Your task to perform on an android device: Search for the best selling TV on Best Buy. Image 0: 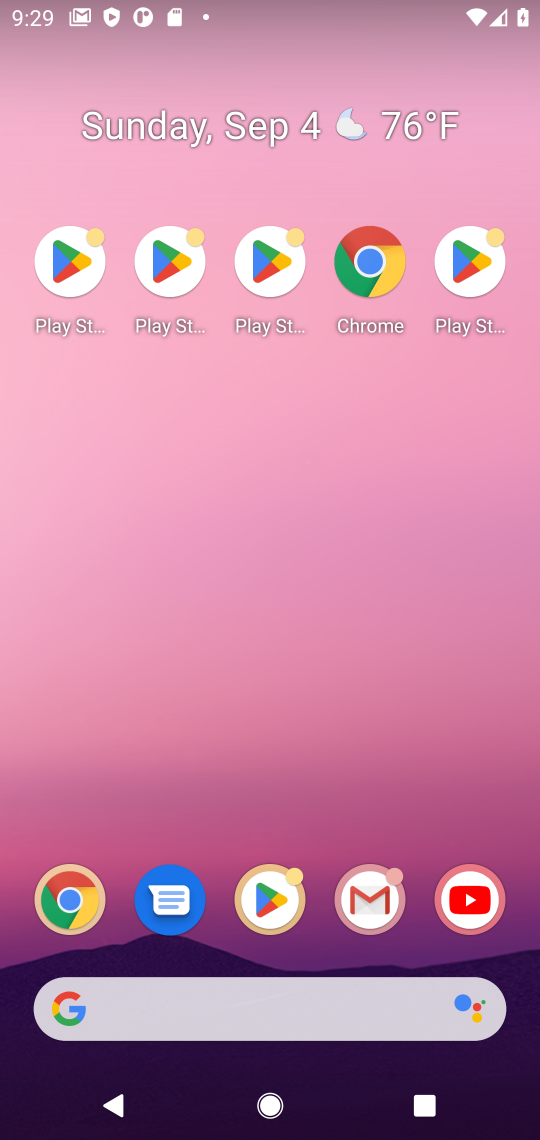
Step 0: drag from (360, 942) to (377, 40)
Your task to perform on an android device: Search for the best selling TV on Best Buy. Image 1: 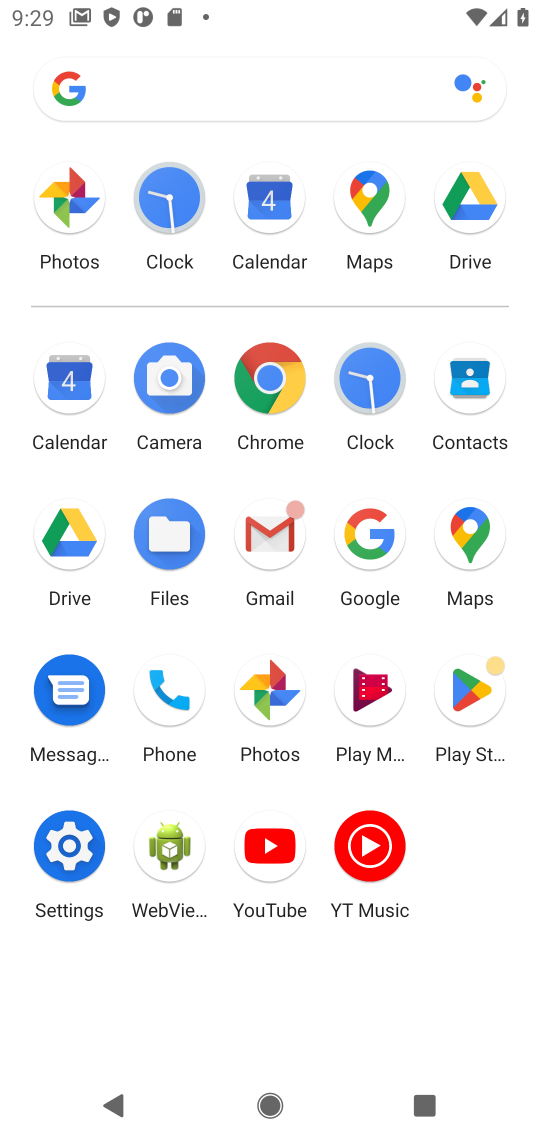
Step 1: click (372, 547)
Your task to perform on an android device: Search for the best selling TV on Best Buy. Image 2: 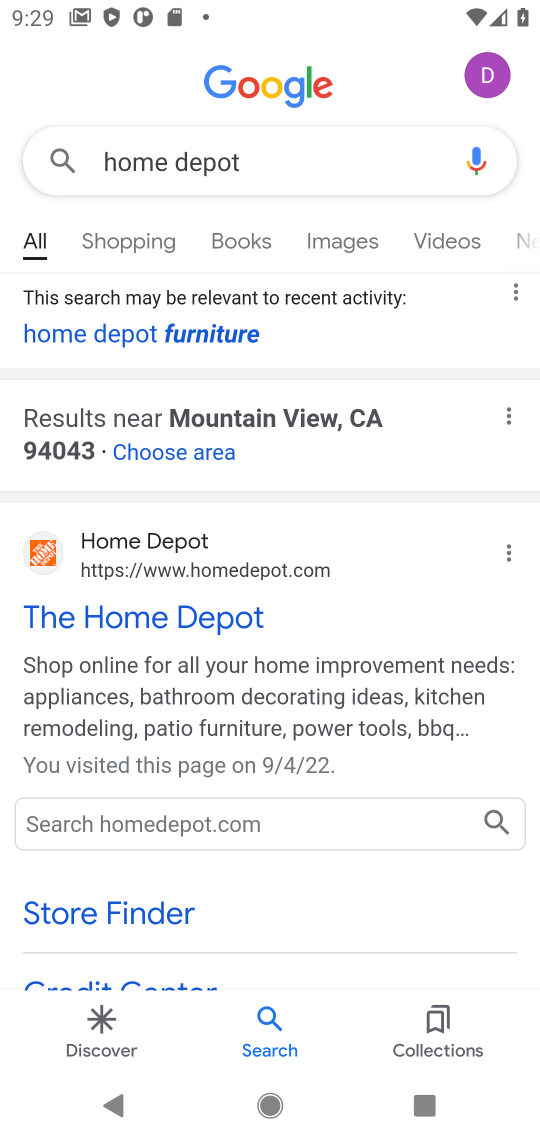
Step 2: click (299, 166)
Your task to perform on an android device: Search for the best selling TV on Best Buy. Image 3: 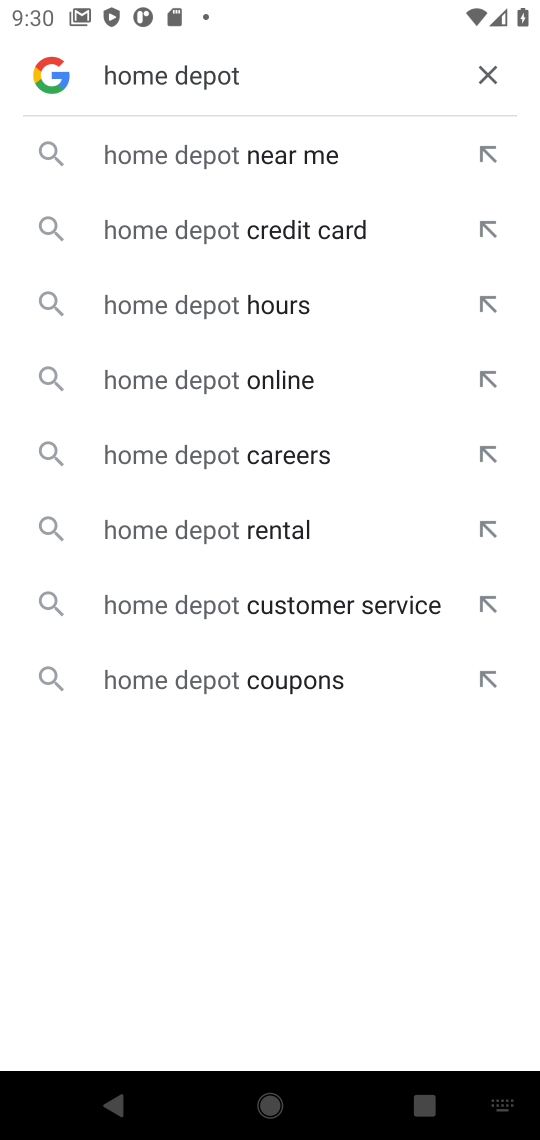
Step 3: click (493, 71)
Your task to perform on an android device: Search for the best selling TV on Best Buy. Image 4: 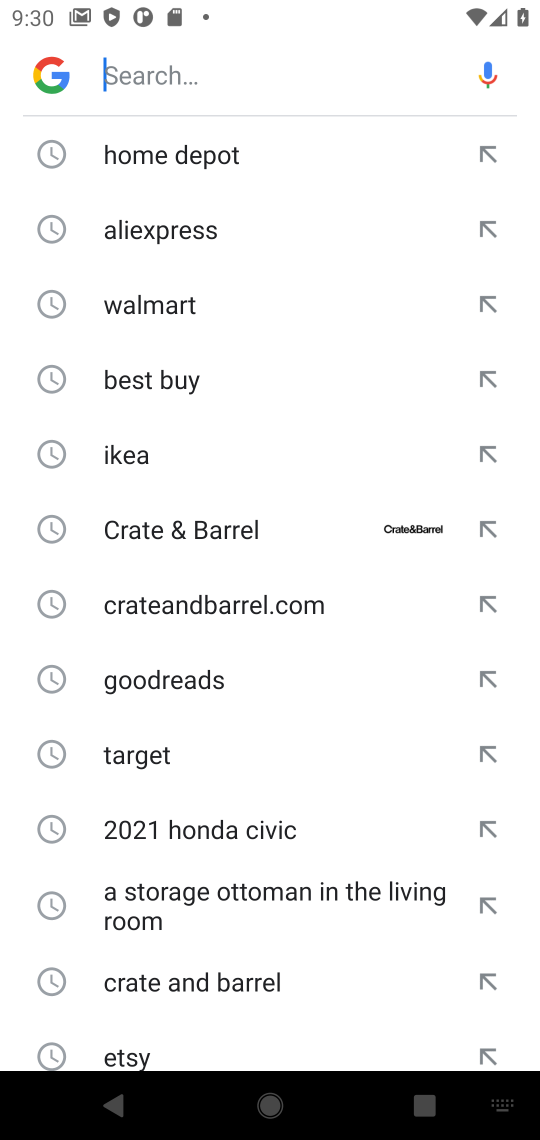
Step 4: type "Best Buy"
Your task to perform on an android device: Search for the best selling TV on Best Buy. Image 5: 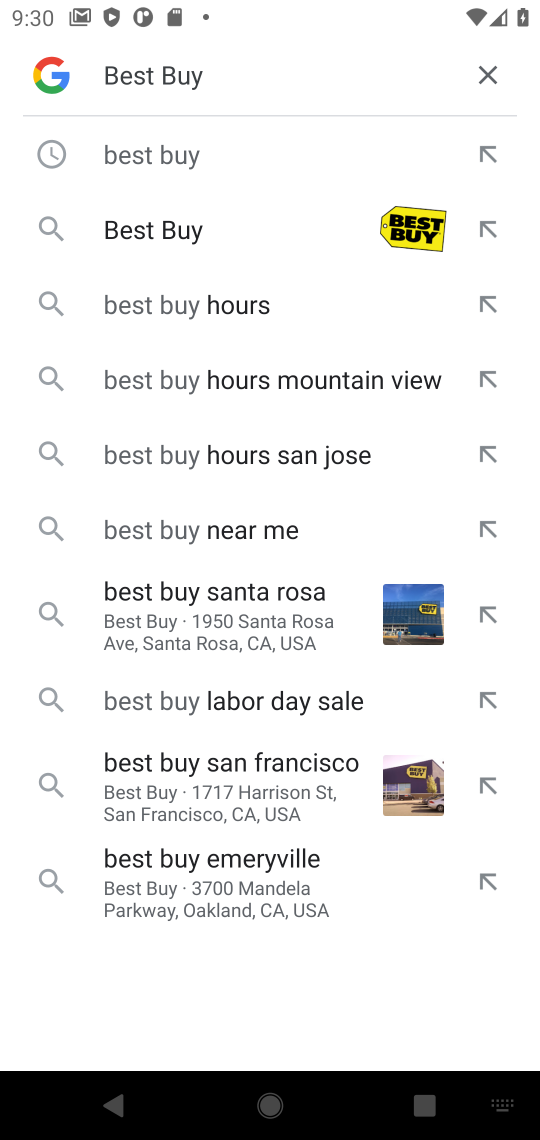
Step 5: type ""
Your task to perform on an android device: Search for the best selling TV on Best Buy. Image 6: 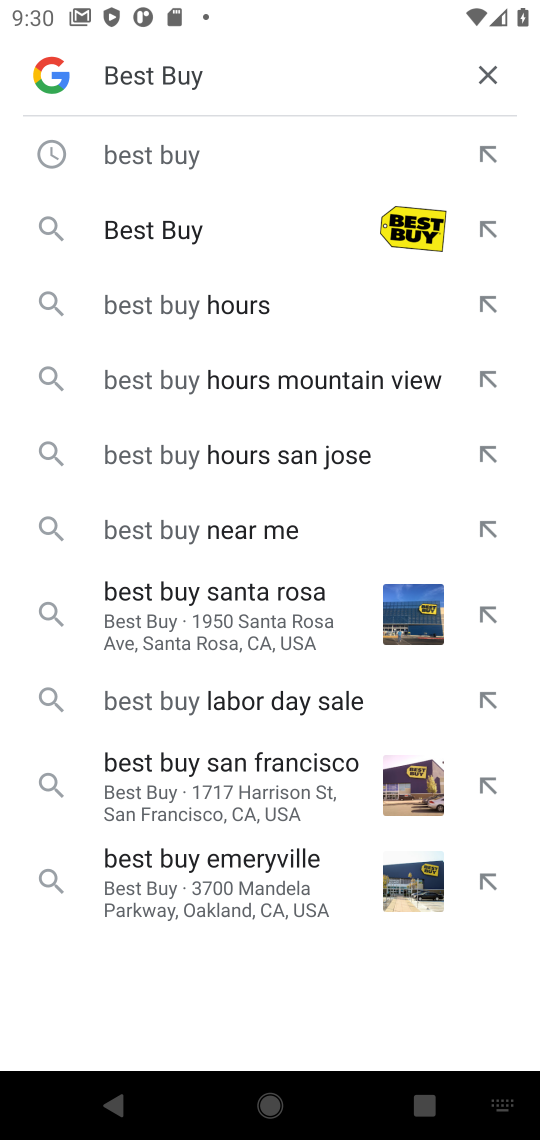
Step 6: click (195, 157)
Your task to perform on an android device: Search for the best selling TV on Best Buy. Image 7: 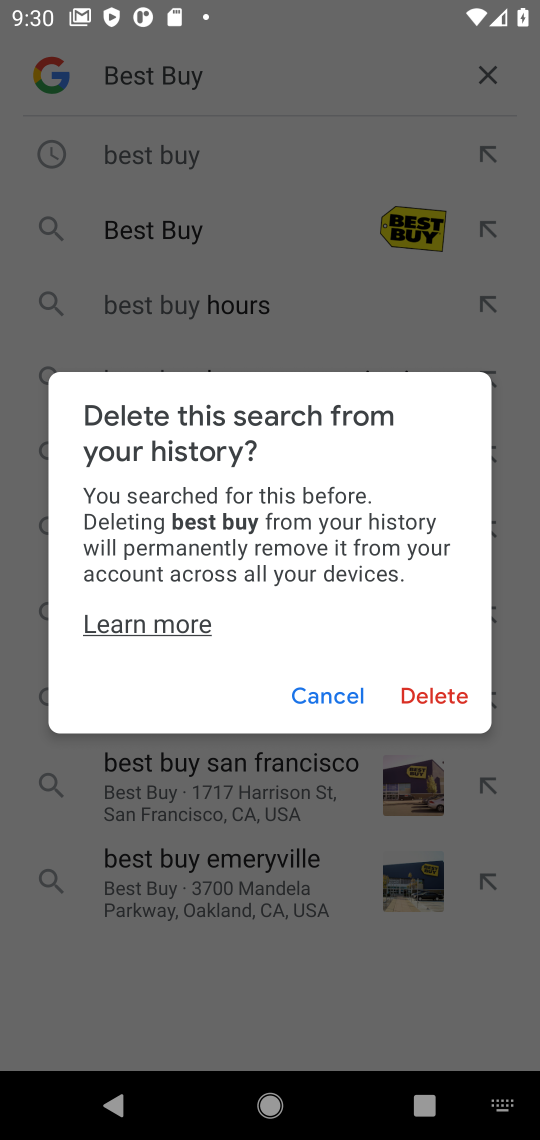
Step 7: click (338, 682)
Your task to perform on an android device: Search for the best selling TV on Best Buy. Image 8: 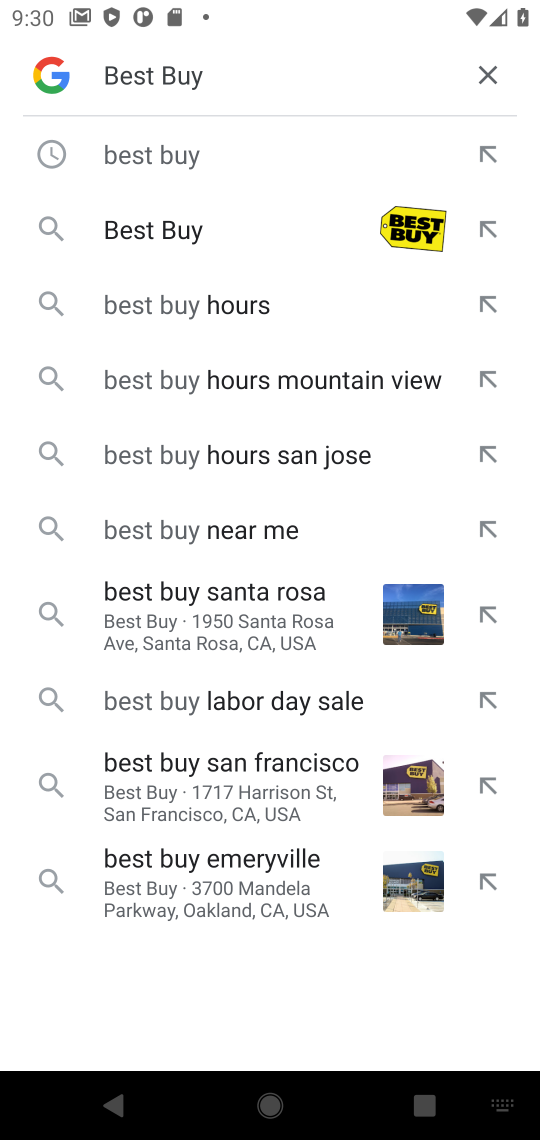
Step 8: click (155, 175)
Your task to perform on an android device: Search for the best selling TV on Best Buy. Image 9: 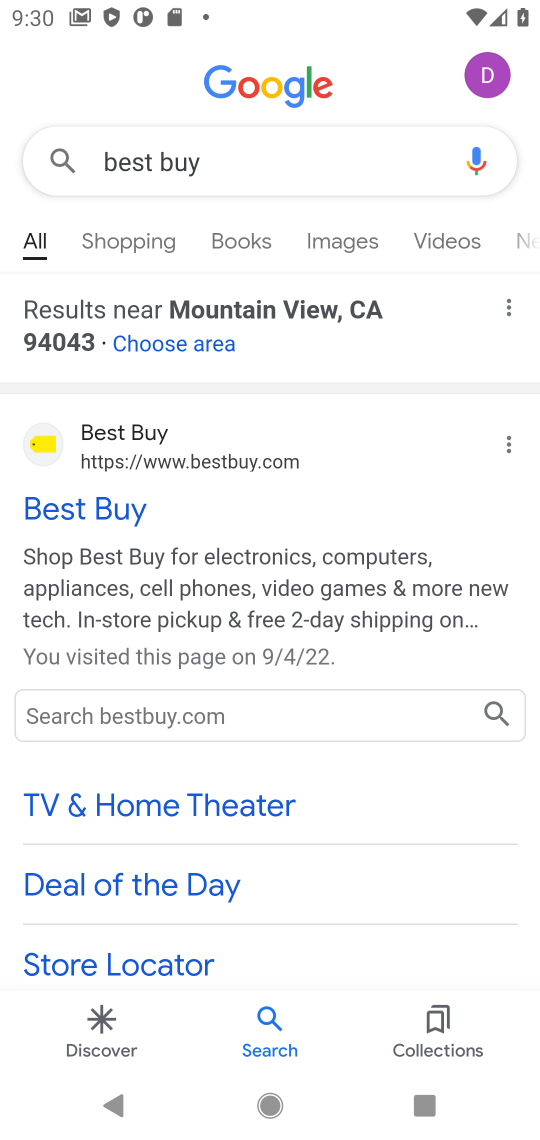
Step 9: click (92, 518)
Your task to perform on an android device: Search for the best selling TV on Best Buy. Image 10: 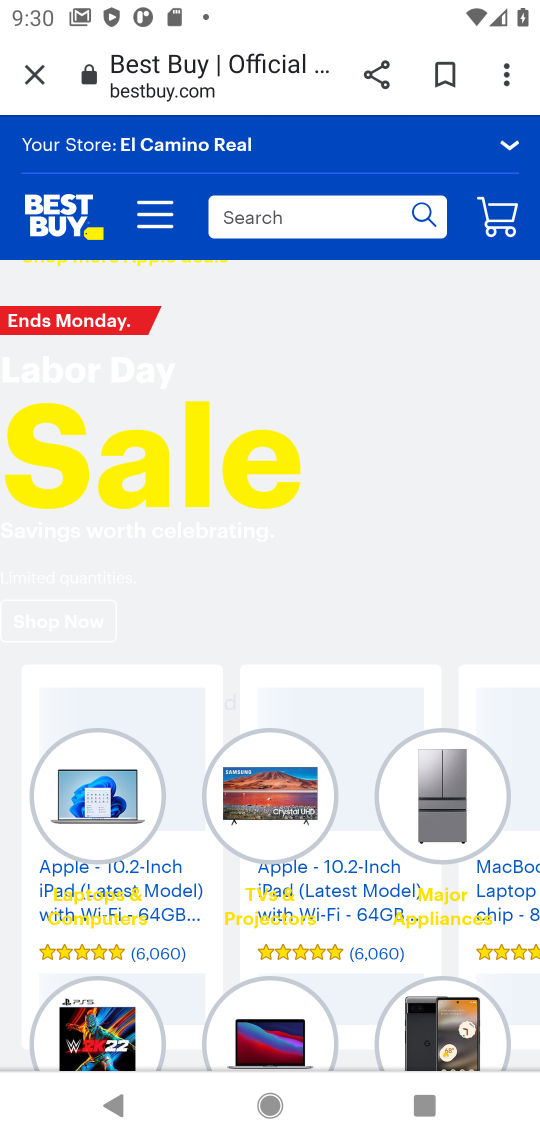
Step 10: click (281, 231)
Your task to perform on an android device: Search for the best selling TV on Best Buy. Image 11: 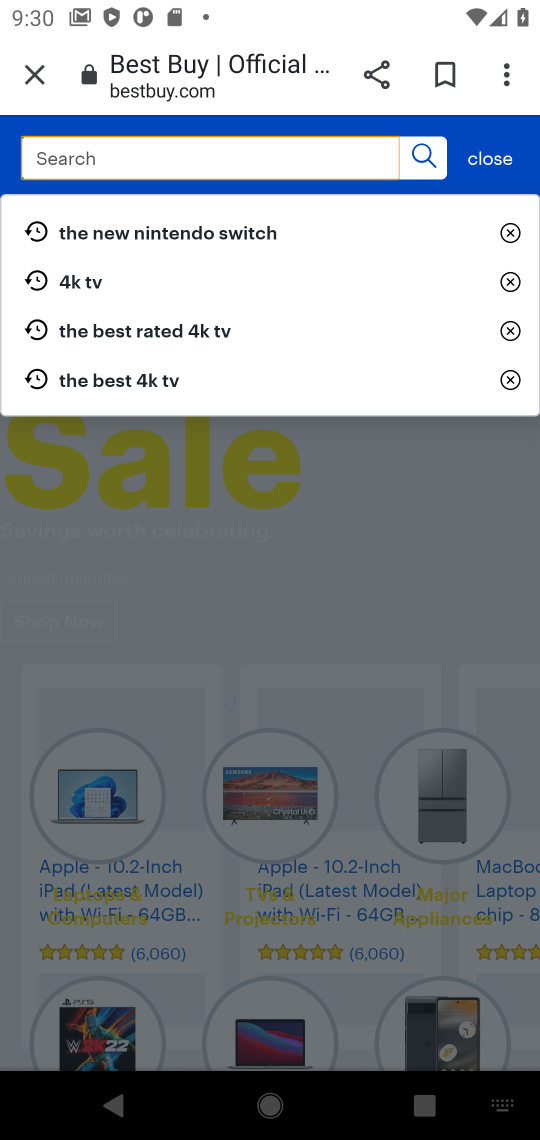
Step 11: type "the best selling TV"
Your task to perform on an android device: Search for the best selling TV on Best Buy. Image 12: 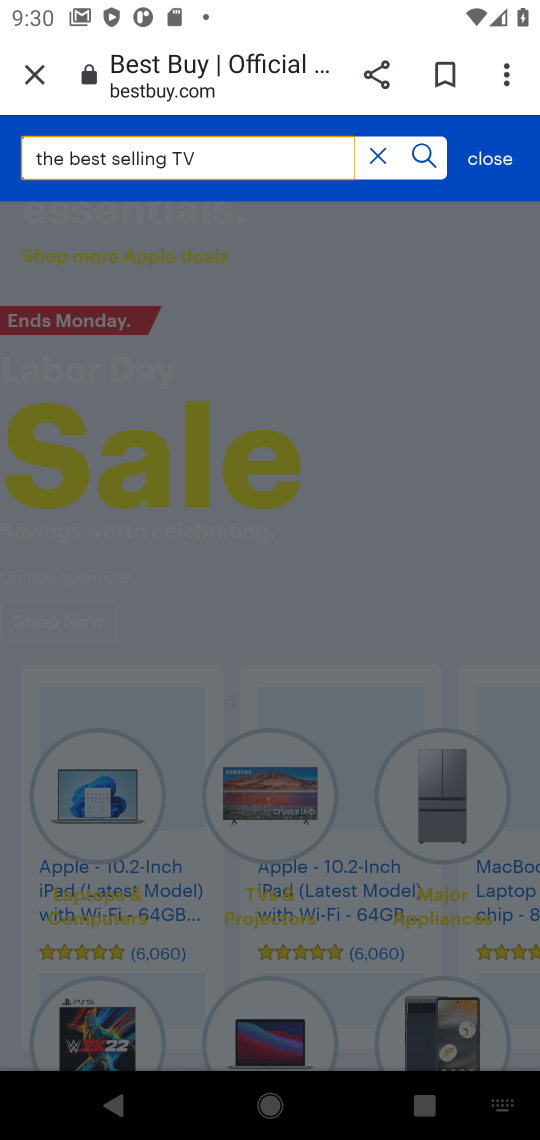
Step 12: click (430, 157)
Your task to perform on an android device: Search for the best selling TV on Best Buy. Image 13: 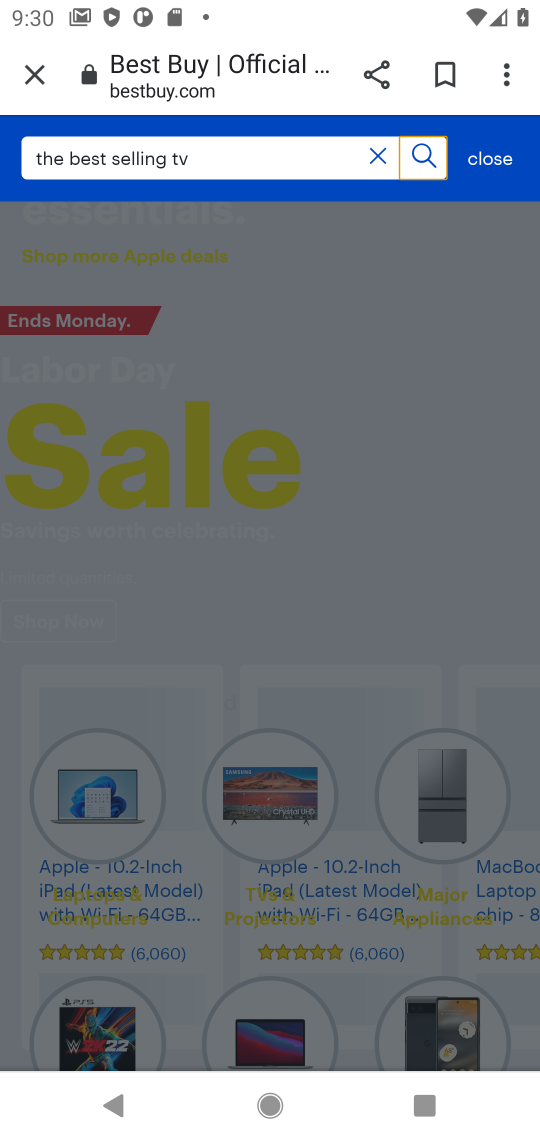
Step 13: click (418, 160)
Your task to perform on an android device: Search for the best selling TV on Best Buy. Image 14: 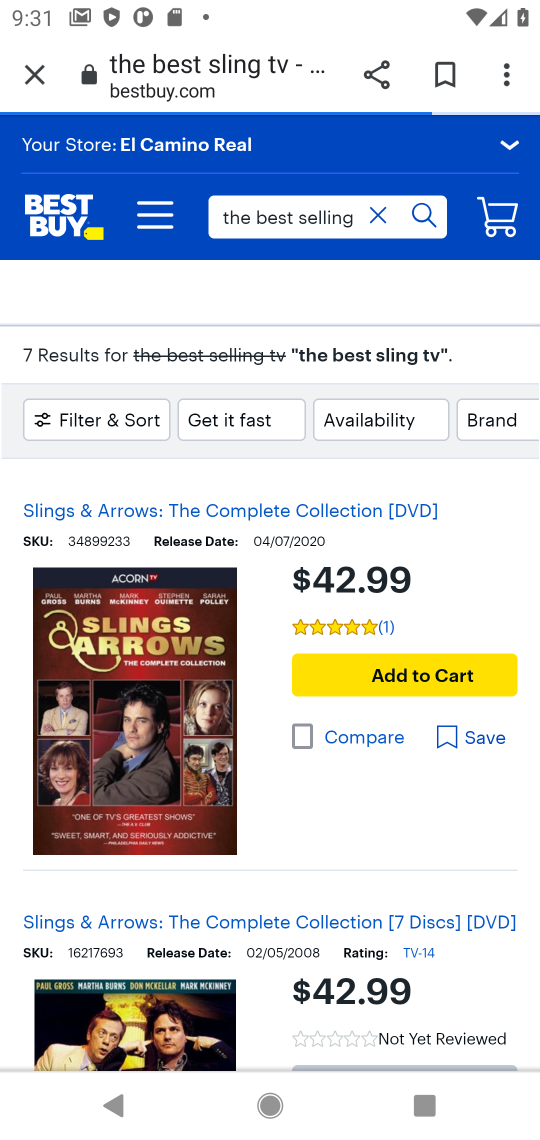
Step 14: task complete